Your task to perform on an android device: Go to calendar. Show me events next week Image 0: 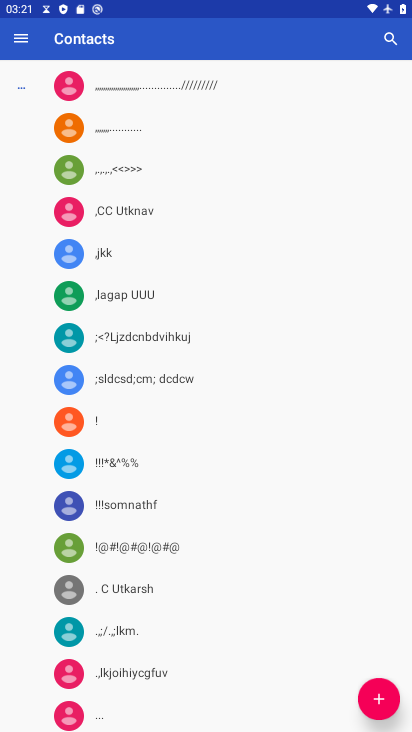
Step 0: press home button
Your task to perform on an android device: Go to calendar. Show me events next week Image 1: 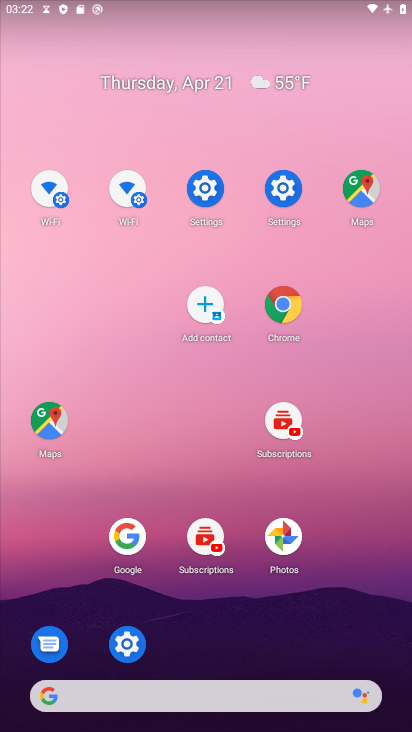
Step 1: drag from (237, 581) to (65, 217)
Your task to perform on an android device: Go to calendar. Show me events next week Image 2: 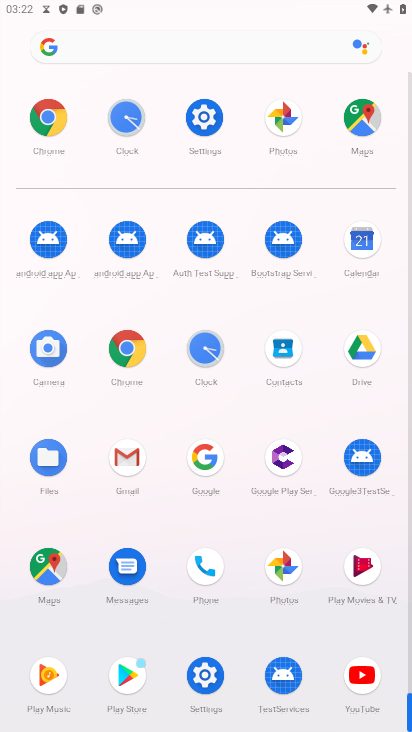
Step 2: click (360, 246)
Your task to perform on an android device: Go to calendar. Show me events next week Image 3: 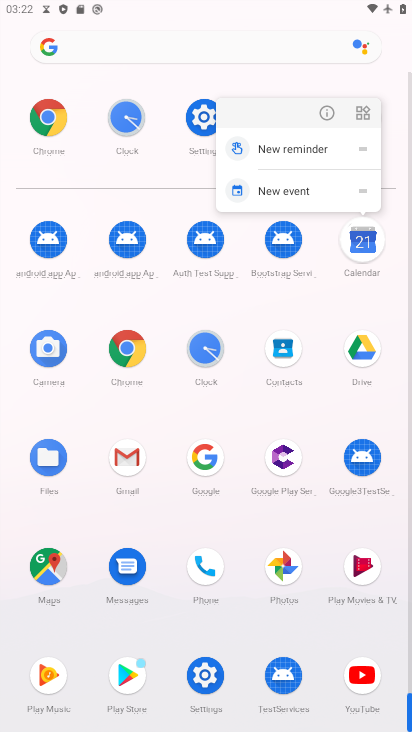
Step 3: click (360, 246)
Your task to perform on an android device: Go to calendar. Show me events next week Image 4: 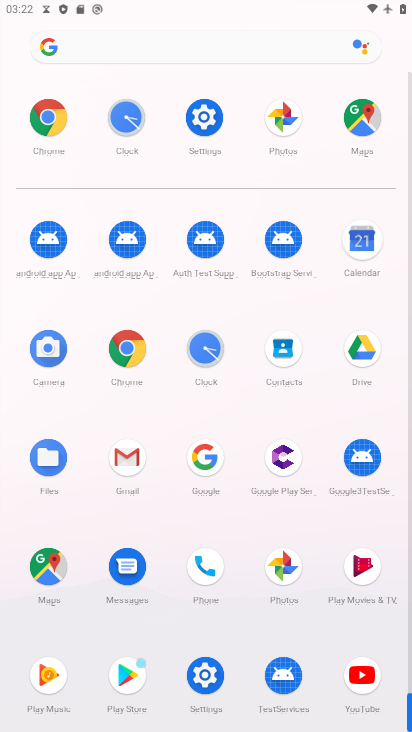
Step 4: click (360, 244)
Your task to perform on an android device: Go to calendar. Show me events next week Image 5: 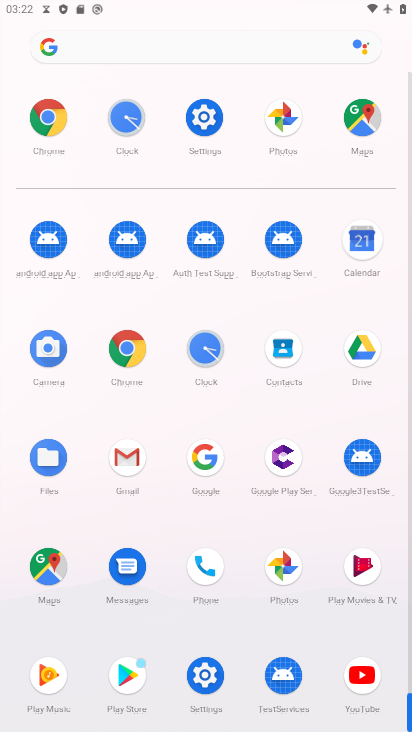
Step 5: click (360, 243)
Your task to perform on an android device: Go to calendar. Show me events next week Image 6: 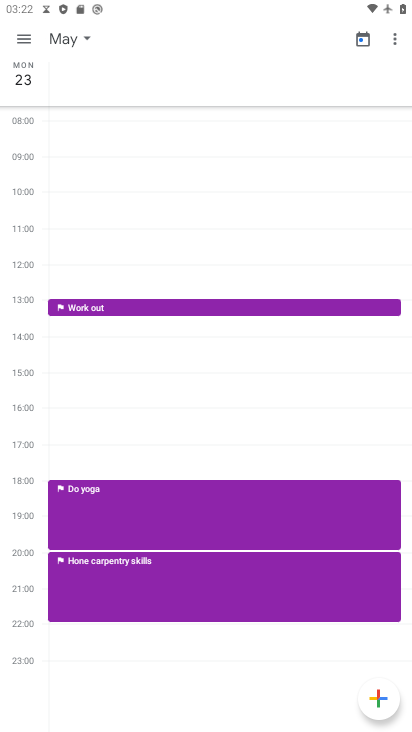
Step 6: drag from (83, 38) to (131, 310)
Your task to perform on an android device: Go to calendar. Show me events next week Image 7: 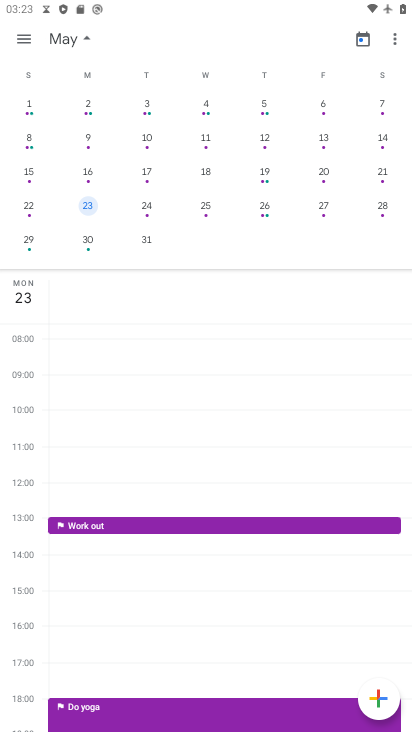
Step 7: drag from (86, 206) to (357, 236)
Your task to perform on an android device: Go to calendar. Show me events next week Image 8: 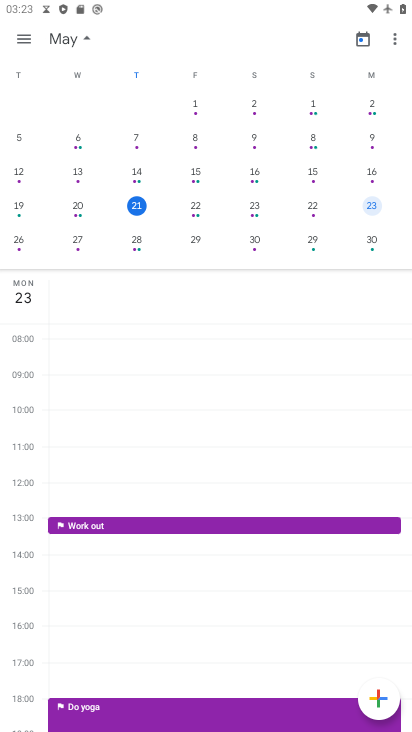
Step 8: click (411, 141)
Your task to perform on an android device: Go to calendar. Show me events next week Image 9: 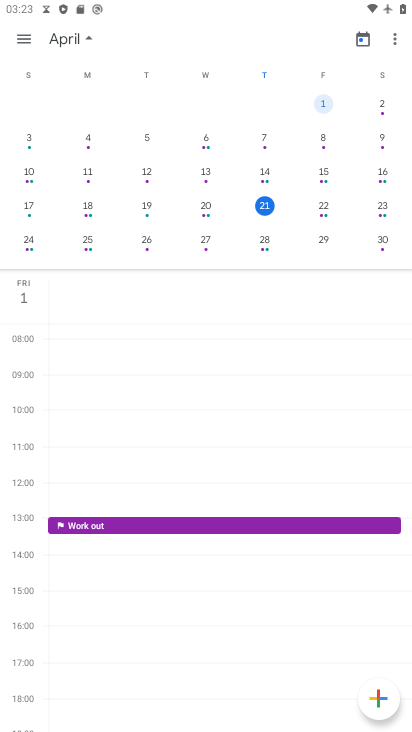
Step 9: task complete